Your task to perform on an android device: choose inbox layout in the gmail app Image 0: 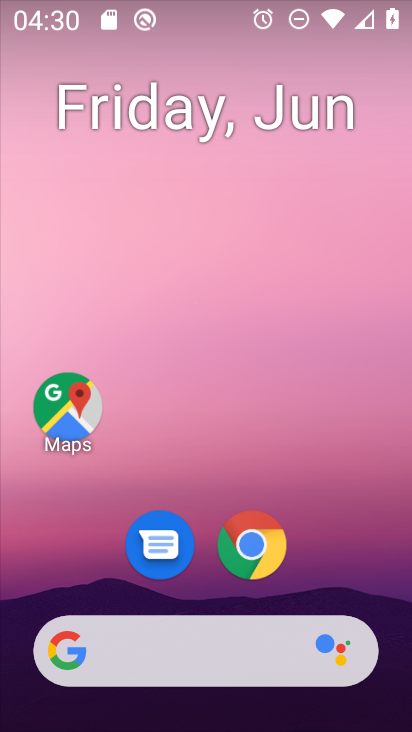
Step 0: drag from (322, 607) to (262, 45)
Your task to perform on an android device: choose inbox layout in the gmail app Image 1: 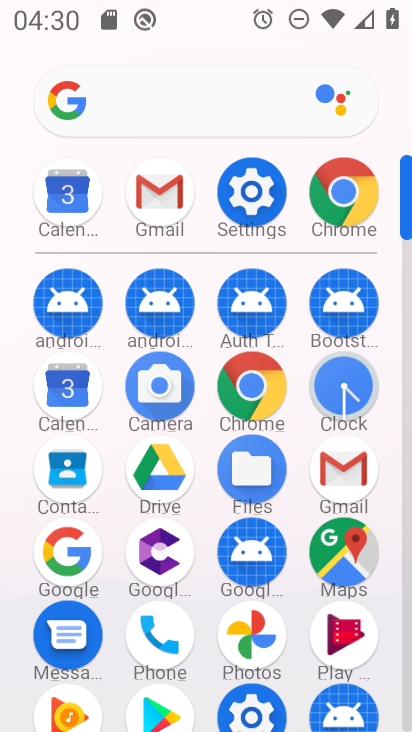
Step 1: click (341, 474)
Your task to perform on an android device: choose inbox layout in the gmail app Image 2: 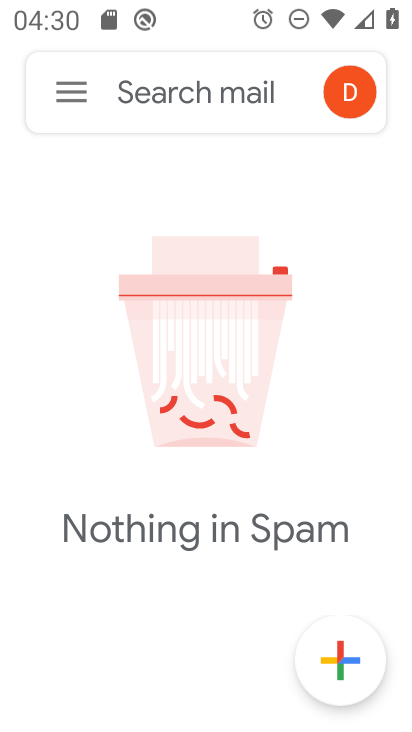
Step 2: click (62, 84)
Your task to perform on an android device: choose inbox layout in the gmail app Image 3: 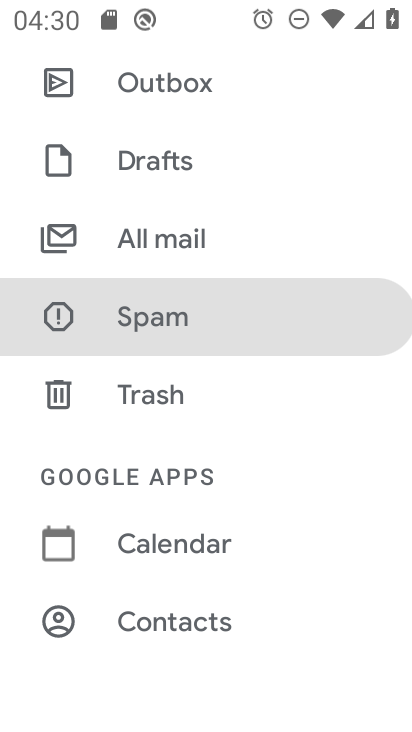
Step 3: drag from (146, 527) to (209, 144)
Your task to perform on an android device: choose inbox layout in the gmail app Image 4: 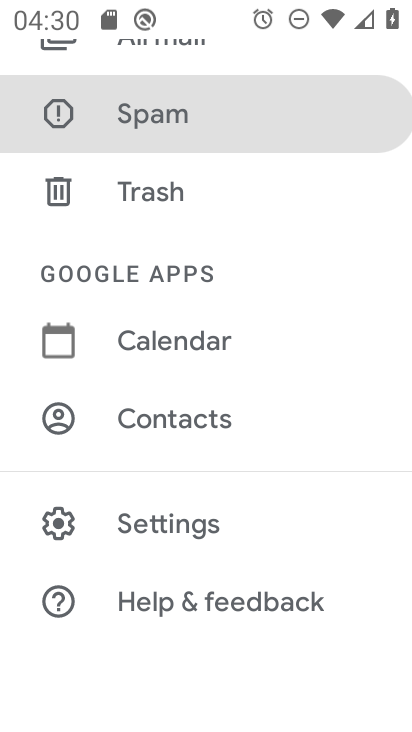
Step 4: click (150, 529)
Your task to perform on an android device: choose inbox layout in the gmail app Image 5: 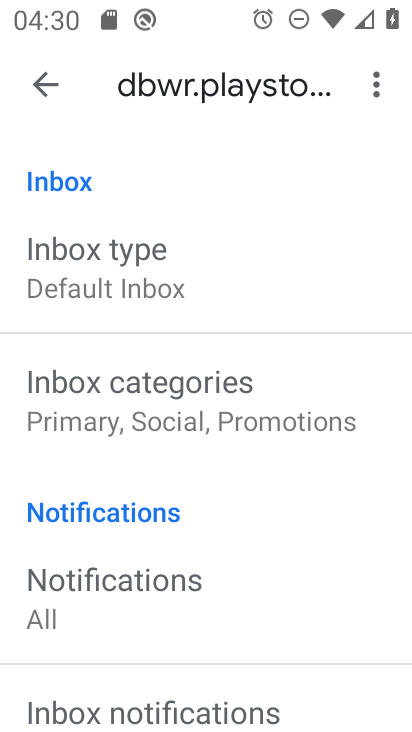
Step 5: click (153, 301)
Your task to perform on an android device: choose inbox layout in the gmail app Image 6: 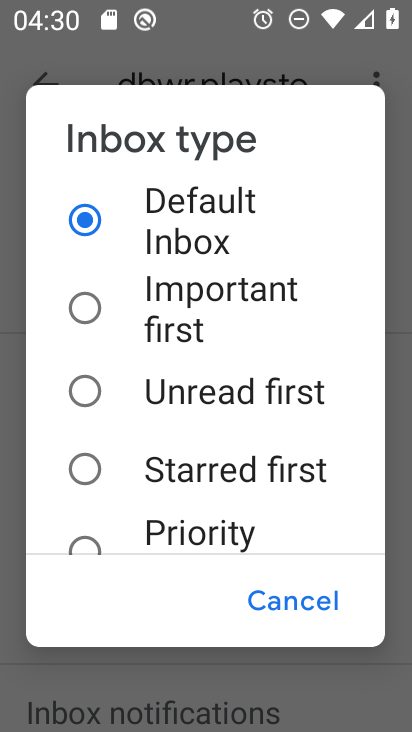
Step 6: click (198, 301)
Your task to perform on an android device: choose inbox layout in the gmail app Image 7: 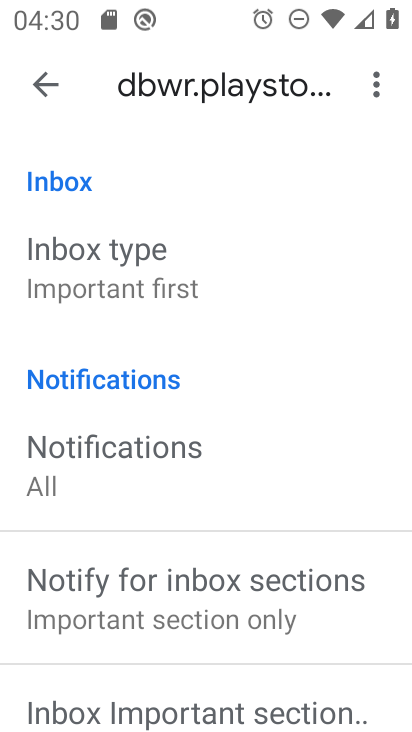
Step 7: task complete